Your task to perform on an android device: snooze an email in the gmail app Image 0: 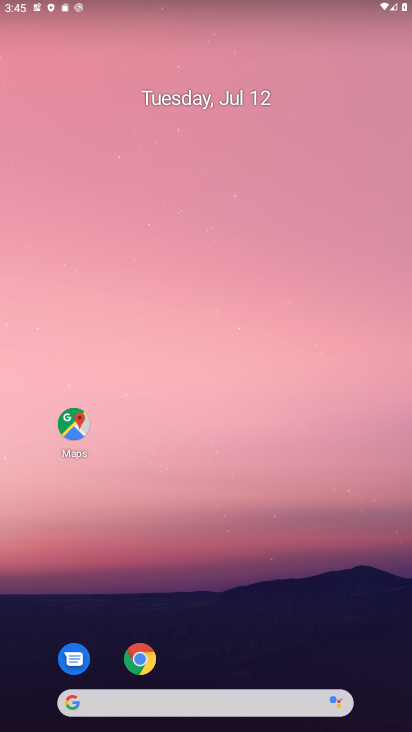
Step 0: drag from (227, 704) to (213, 115)
Your task to perform on an android device: snooze an email in the gmail app Image 1: 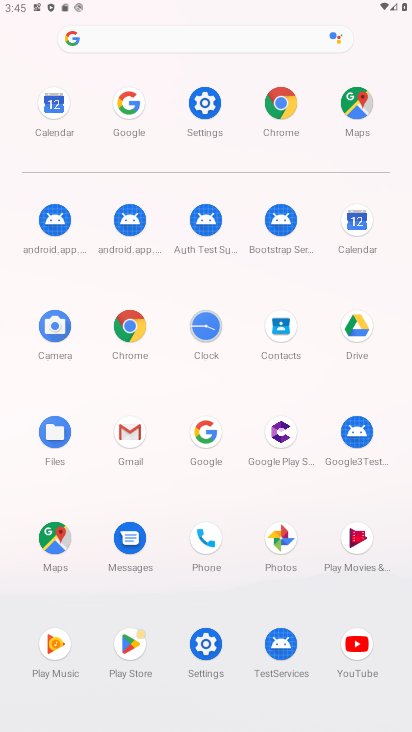
Step 1: click (128, 433)
Your task to perform on an android device: snooze an email in the gmail app Image 2: 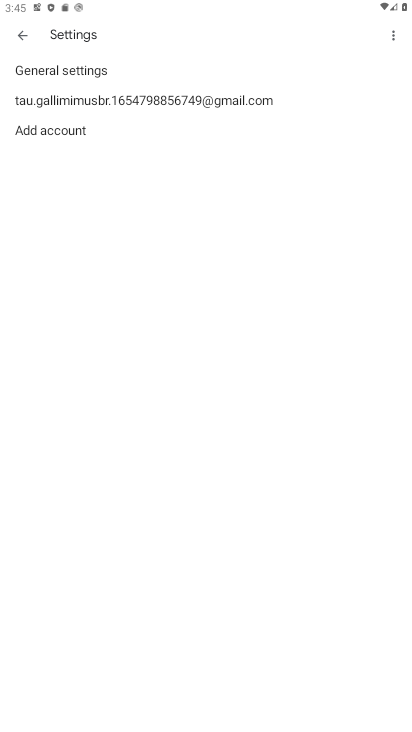
Step 2: click (24, 35)
Your task to perform on an android device: snooze an email in the gmail app Image 3: 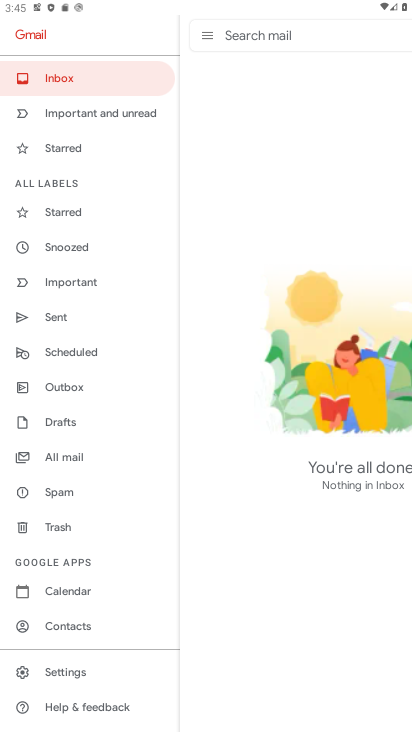
Step 3: task complete